Your task to perform on an android device: add a contact Image 0: 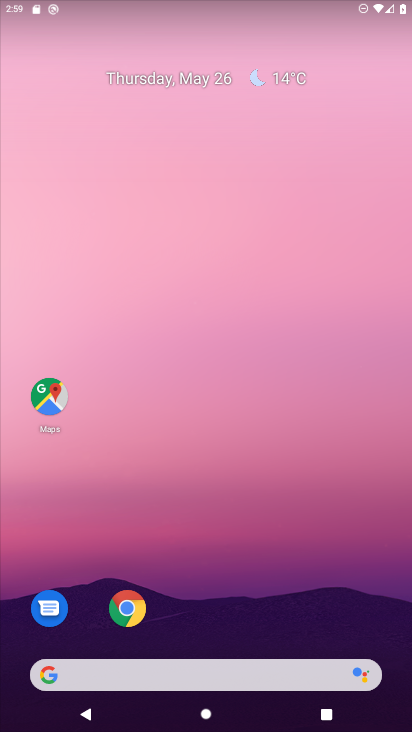
Step 0: drag from (293, 549) to (369, 81)
Your task to perform on an android device: add a contact Image 1: 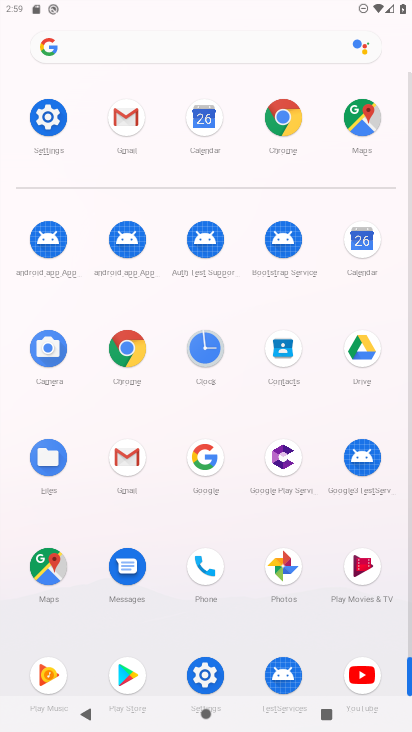
Step 1: click (211, 573)
Your task to perform on an android device: add a contact Image 2: 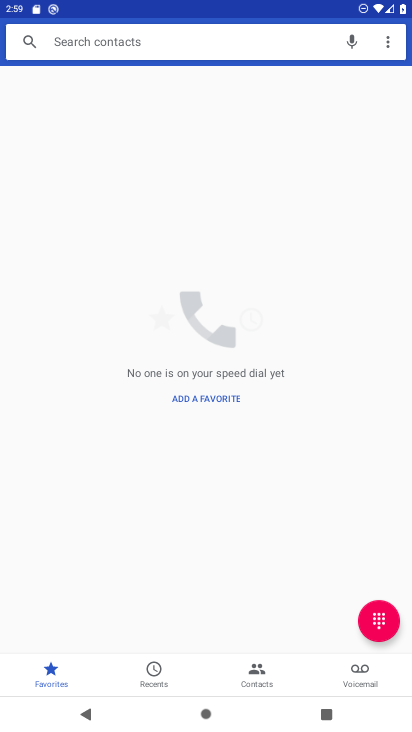
Step 2: click (253, 670)
Your task to perform on an android device: add a contact Image 3: 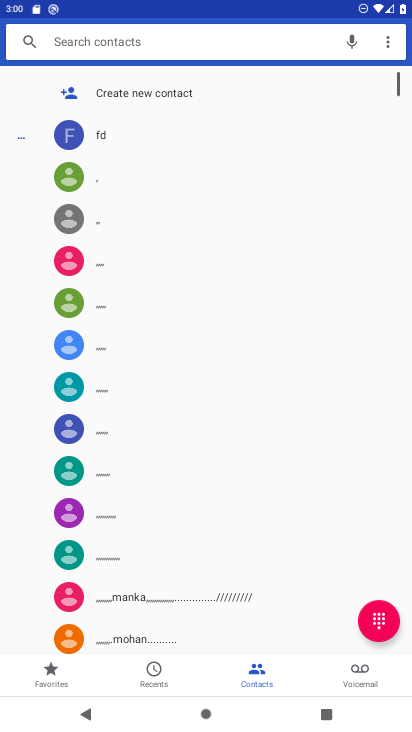
Step 3: click (94, 83)
Your task to perform on an android device: add a contact Image 4: 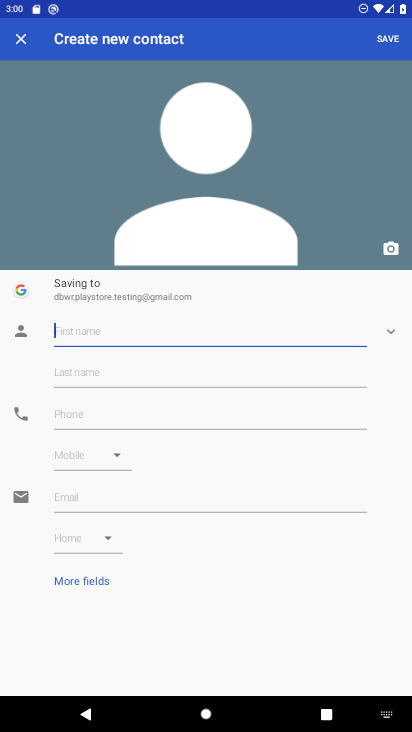
Step 4: type "tyuyyy"
Your task to perform on an android device: add a contact Image 5: 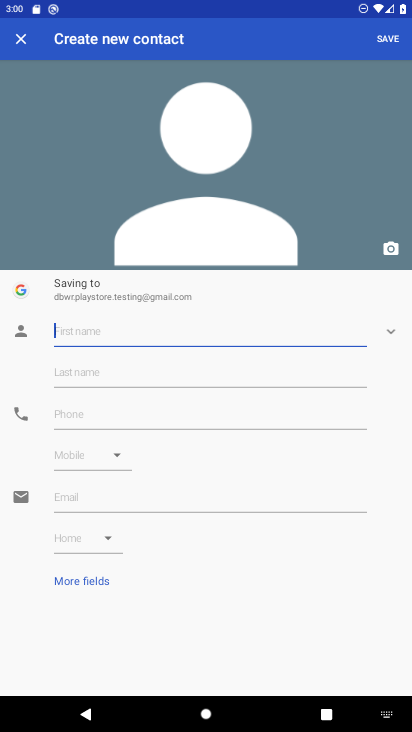
Step 5: click (105, 421)
Your task to perform on an android device: add a contact Image 6: 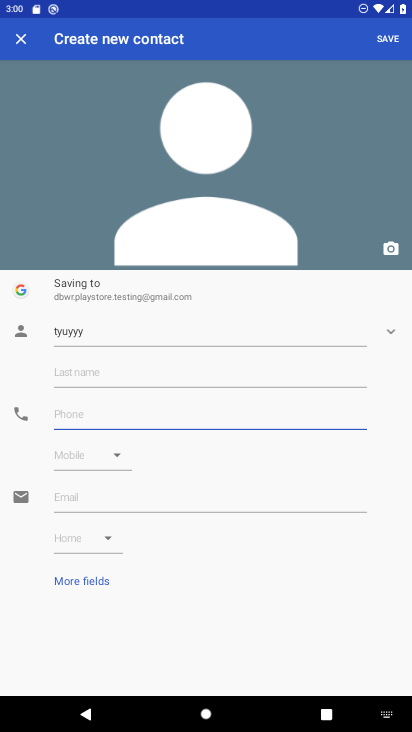
Step 6: type "56776567"
Your task to perform on an android device: add a contact Image 7: 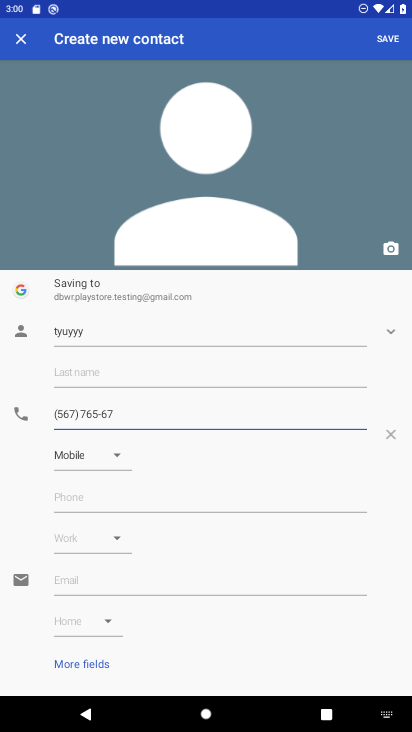
Step 7: click (385, 36)
Your task to perform on an android device: add a contact Image 8: 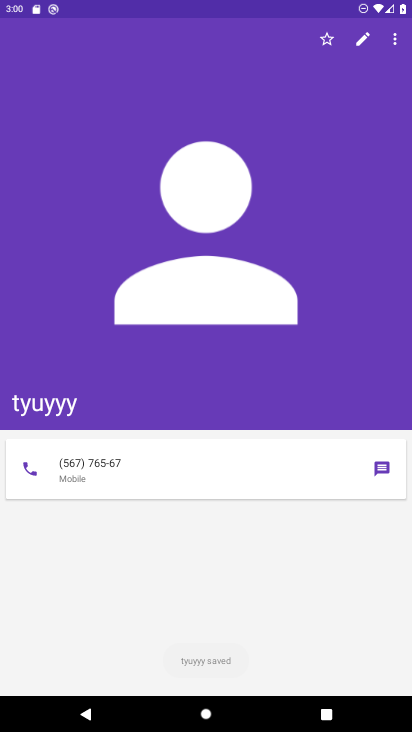
Step 8: task complete